Your task to perform on an android device: Open the stopwatch Image 0: 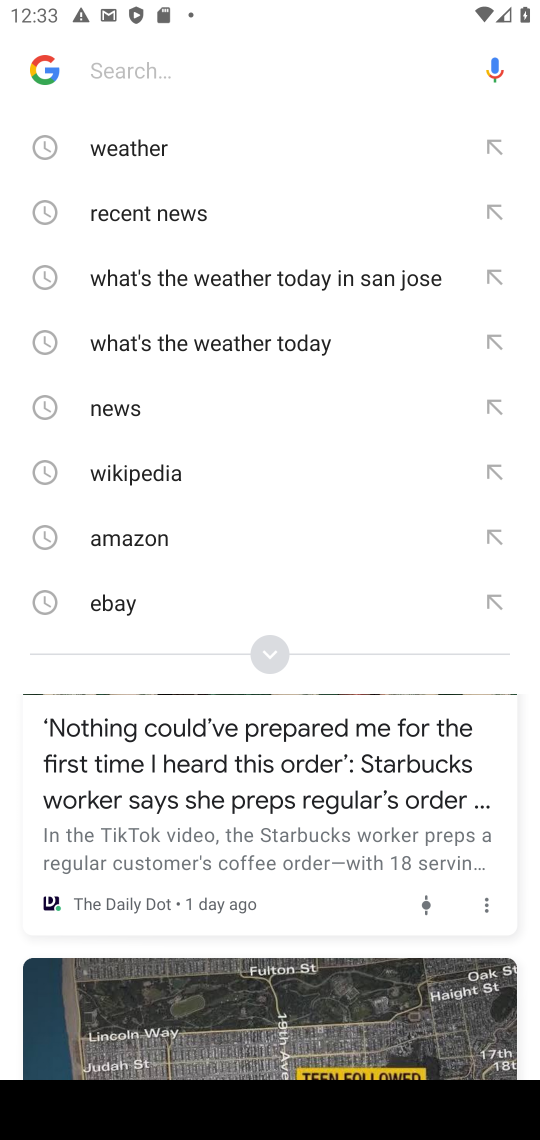
Step 0: press home button
Your task to perform on an android device: Open the stopwatch Image 1: 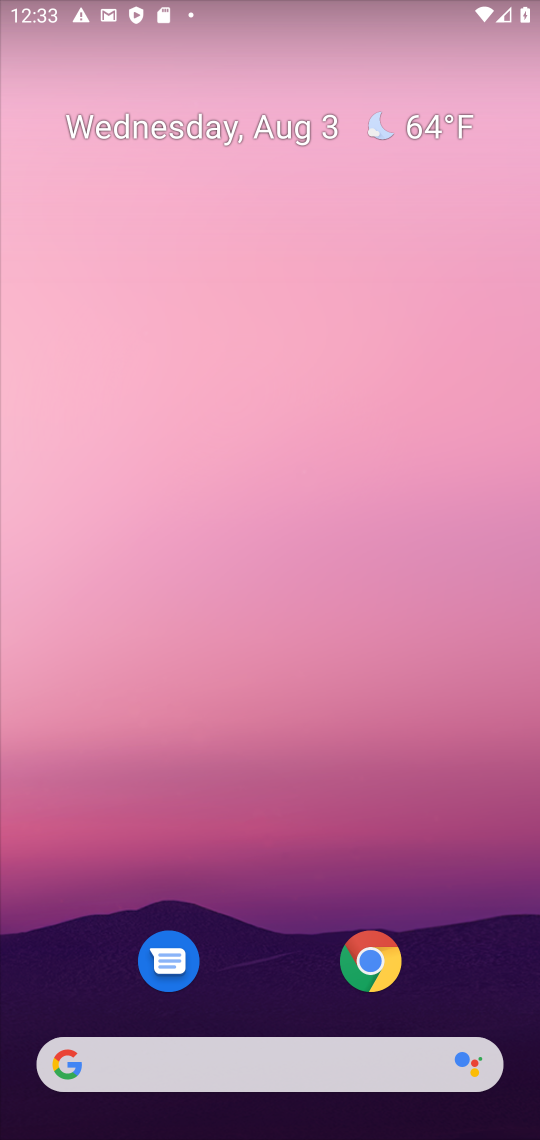
Step 1: drag from (291, 939) to (340, 68)
Your task to perform on an android device: Open the stopwatch Image 2: 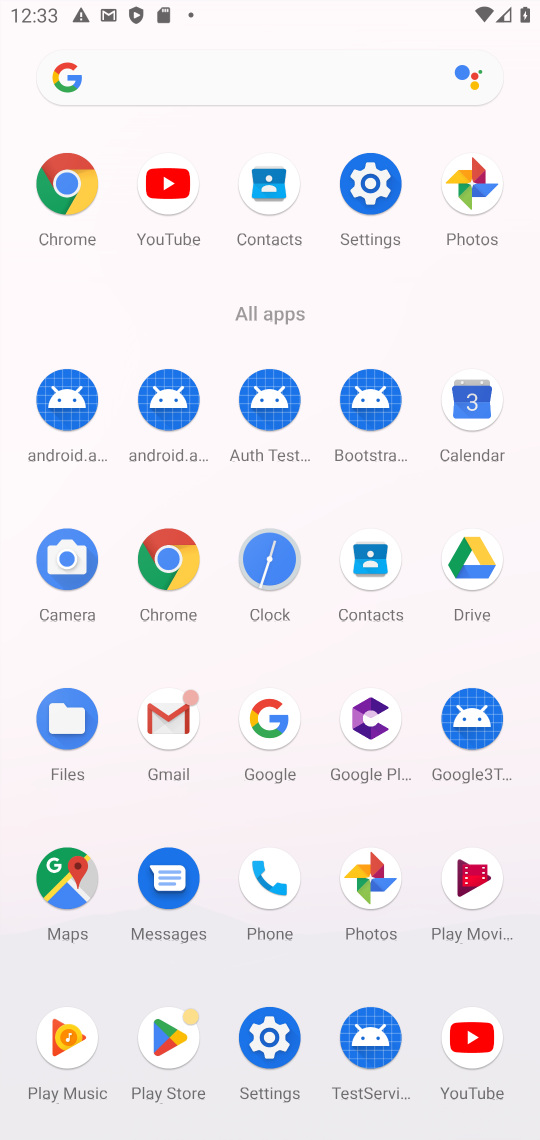
Step 2: click (274, 567)
Your task to perform on an android device: Open the stopwatch Image 3: 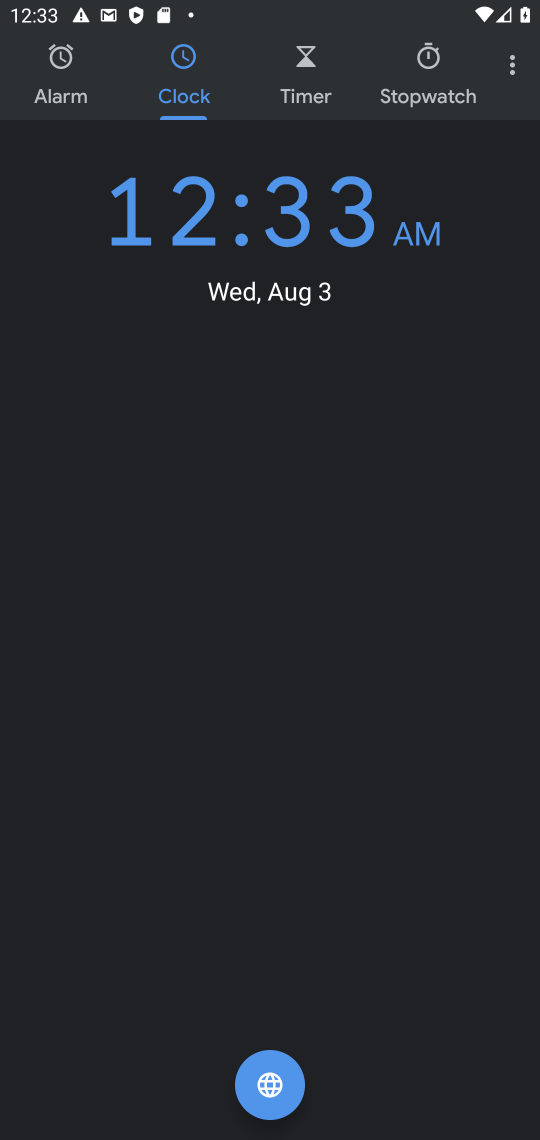
Step 3: click (428, 63)
Your task to perform on an android device: Open the stopwatch Image 4: 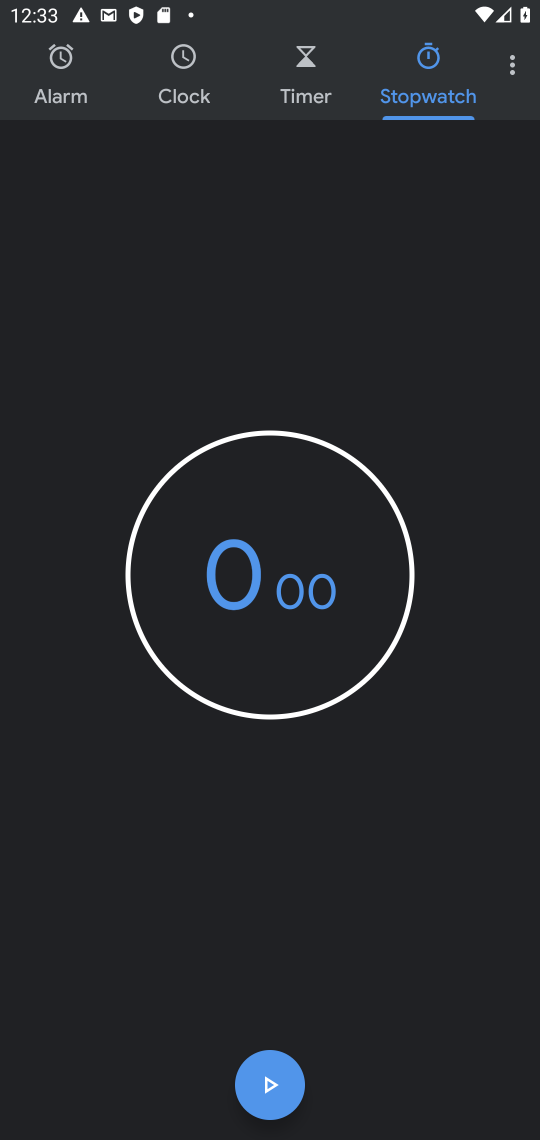
Step 4: task complete